Your task to perform on an android device: Go to battery settings Image 0: 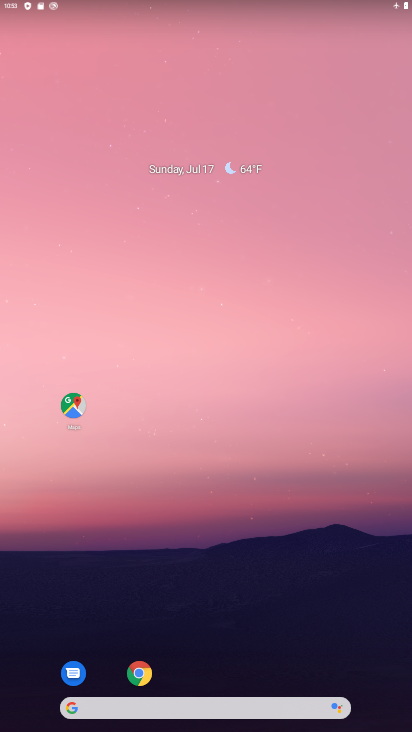
Step 0: drag from (308, 643) to (256, 183)
Your task to perform on an android device: Go to battery settings Image 1: 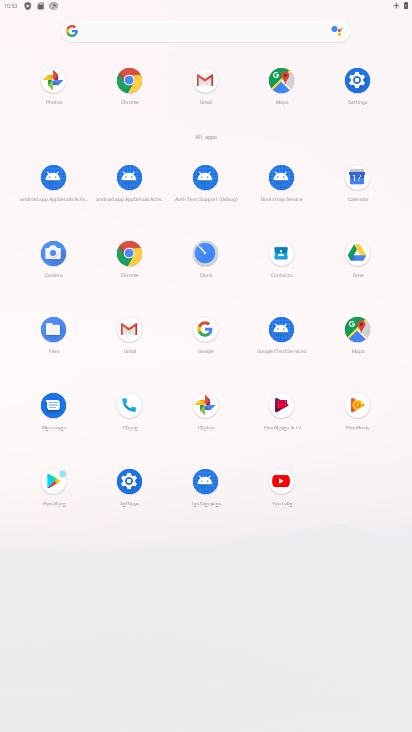
Step 1: click (354, 89)
Your task to perform on an android device: Go to battery settings Image 2: 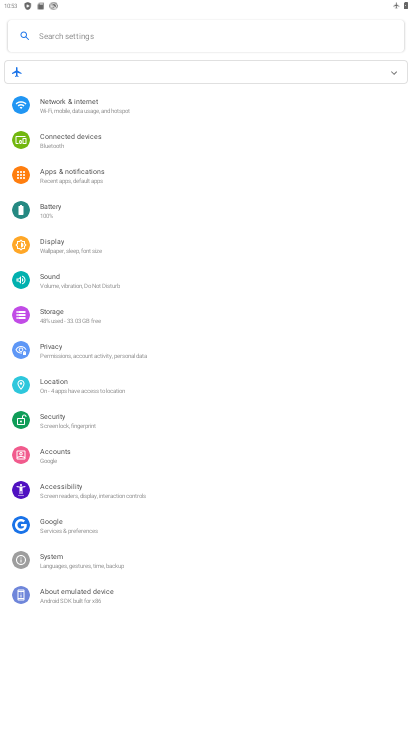
Step 2: click (120, 216)
Your task to perform on an android device: Go to battery settings Image 3: 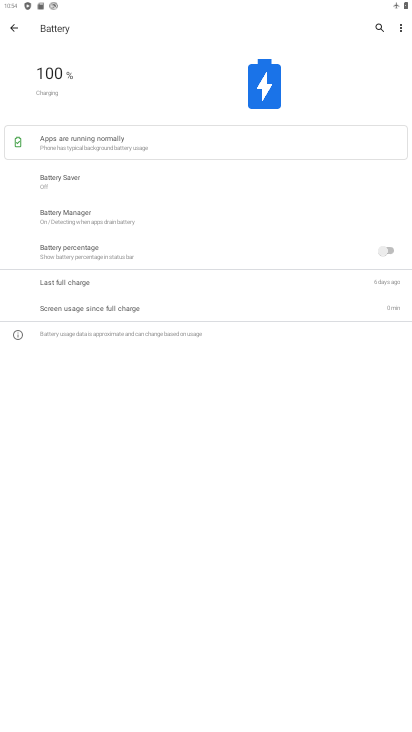
Step 3: task complete